Your task to perform on an android device: install app "Life360: Find Family & Friends" Image 0: 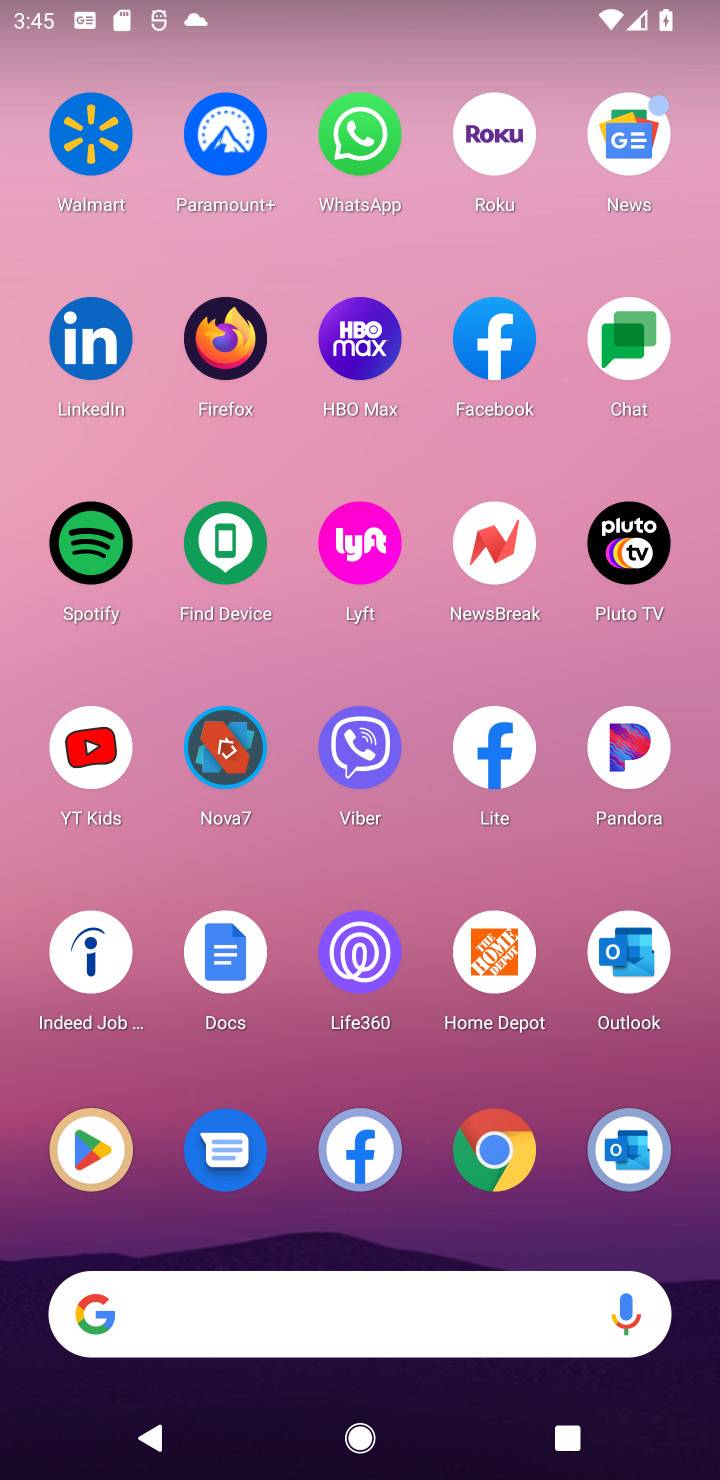
Step 0: click (376, 972)
Your task to perform on an android device: install app "Life360: Find Family & Friends" Image 1: 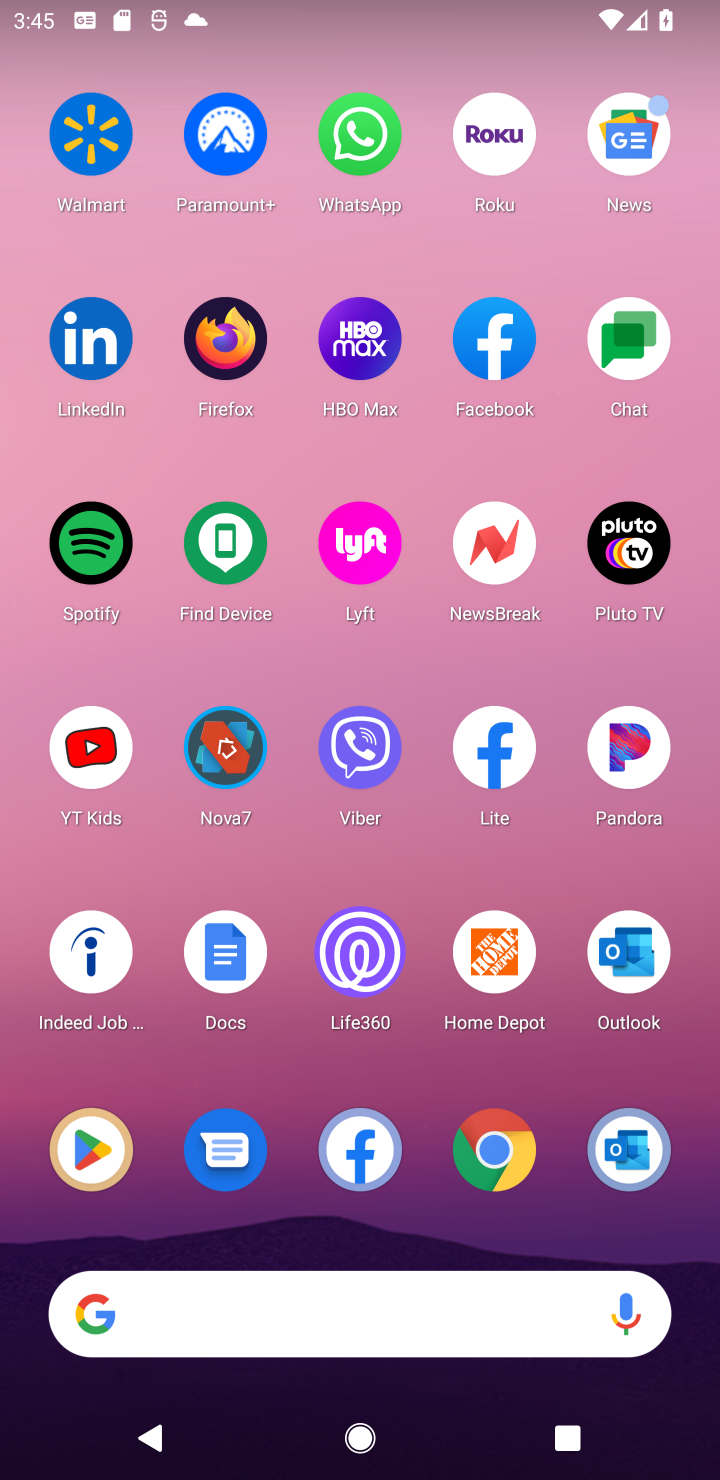
Step 1: task complete